Your task to perform on an android device: turn on javascript in the chrome app Image 0: 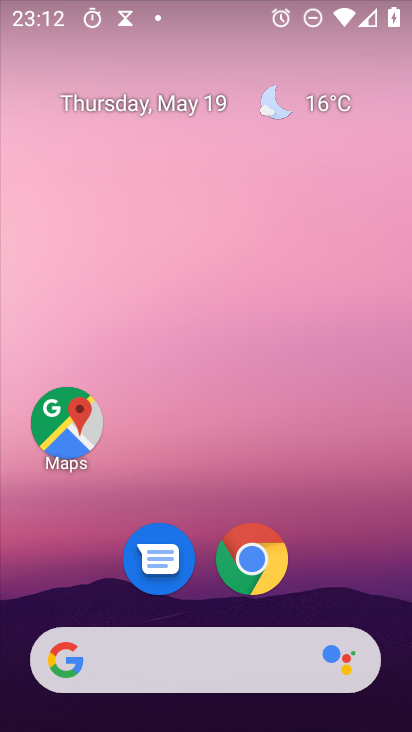
Step 0: click (244, 560)
Your task to perform on an android device: turn on javascript in the chrome app Image 1: 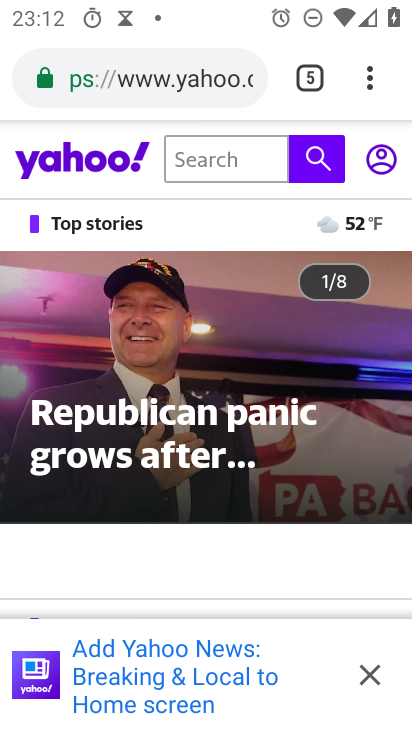
Step 1: click (370, 86)
Your task to perform on an android device: turn on javascript in the chrome app Image 2: 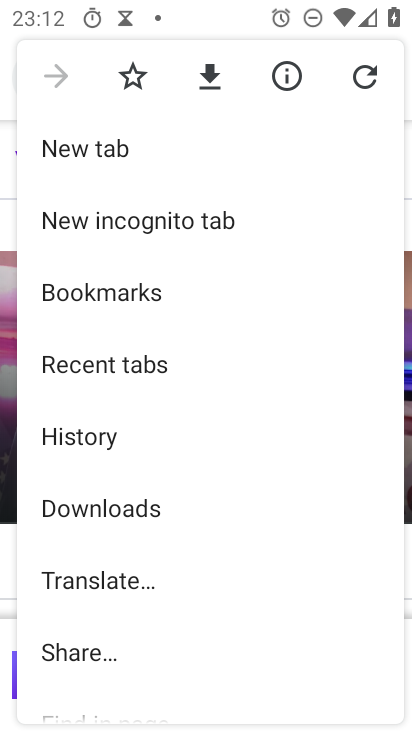
Step 2: drag from (100, 676) to (123, 236)
Your task to perform on an android device: turn on javascript in the chrome app Image 3: 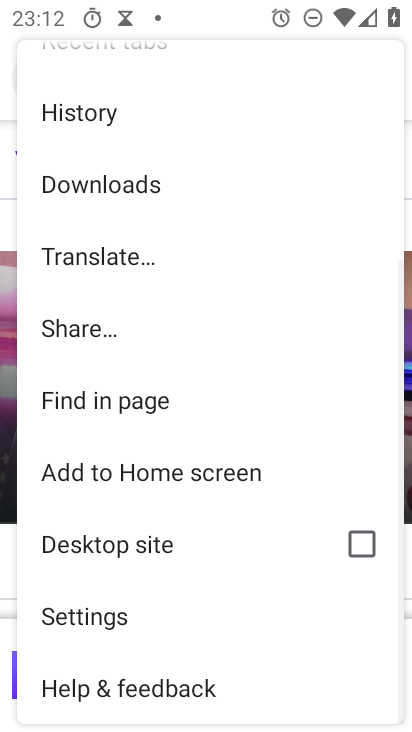
Step 3: click (104, 613)
Your task to perform on an android device: turn on javascript in the chrome app Image 4: 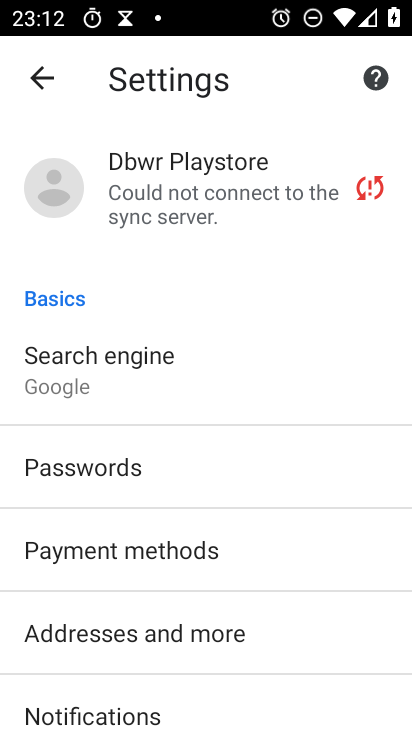
Step 4: drag from (94, 691) to (116, 316)
Your task to perform on an android device: turn on javascript in the chrome app Image 5: 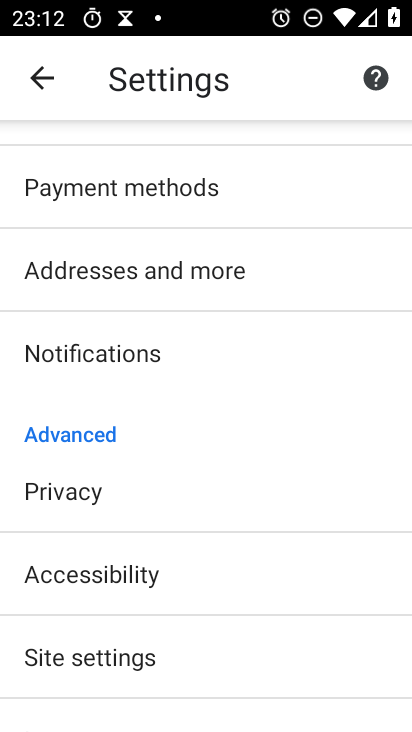
Step 5: drag from (131, 665) to (133, 343)
Your task to perform on an android device: turn on javascript in the chrome app Image 6: 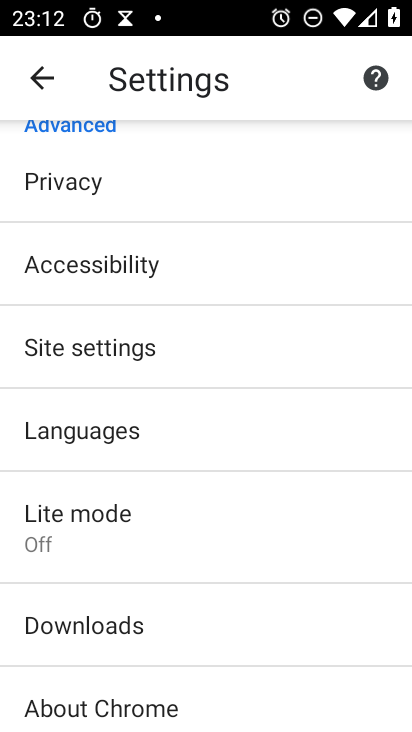
Step 6: click (110, 346)
Your task to perform on an android device: turn on javascript in the chrome app Image 7: 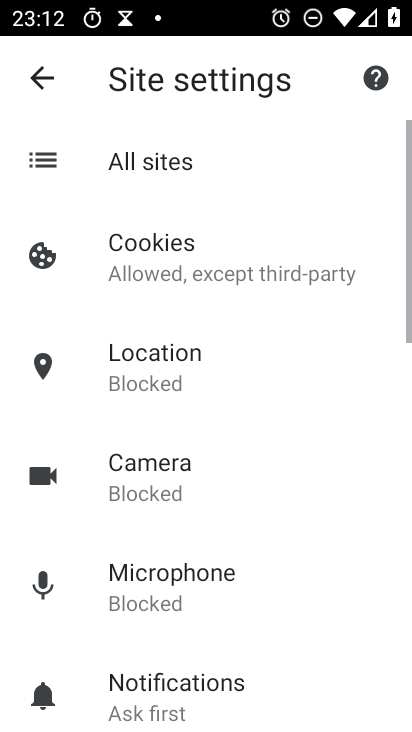
Step 7: drag from (190, 670) to (193, 326)
Your task to perform on an android device: turn on javascript in the chrome app Image 8: 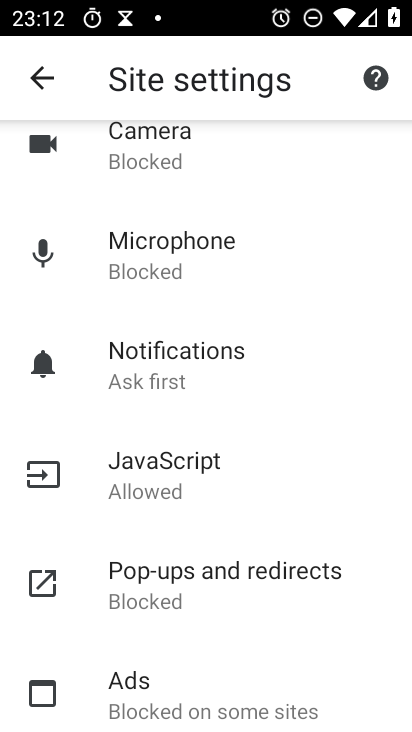
Step 8: click (159, 471)
Your task to perform on an android device: turn on javascript in the chrome app Image 9: 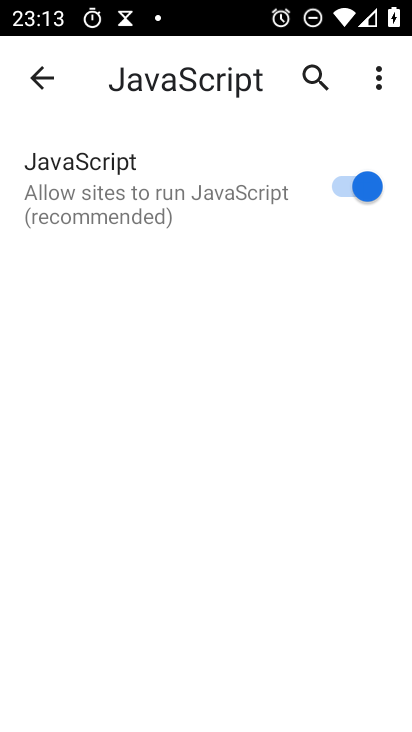
Step 9: task complete